Your task to perform on an android device: What's the weather going to be this weekend? Image 0: 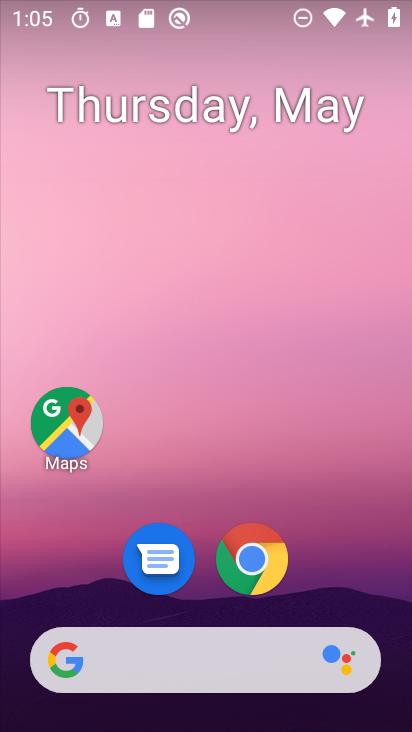
Step 0: drag from (211, 670) to (403, 354)
Your task to perform on an android device: What's the weather going to be this weekend? Image 1: 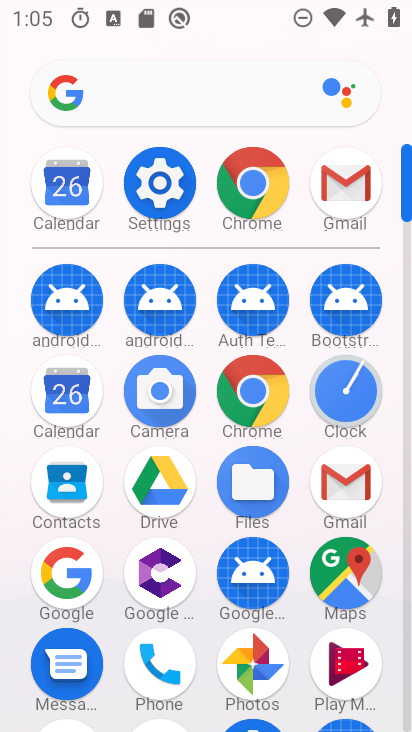
Step 1: click (67, 573)
Your task to perform on an android device: What's the weather going to be this weekend? Image 2: 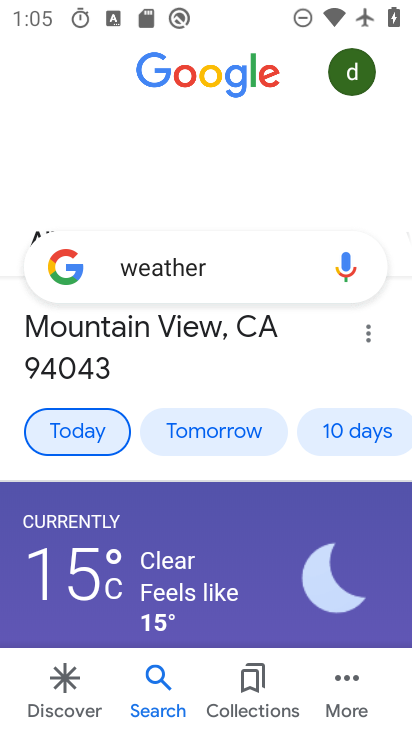
Step 2: click (344, 438)
Your task to perform on an android device: What's the weather going to be this weekend? Image 3: 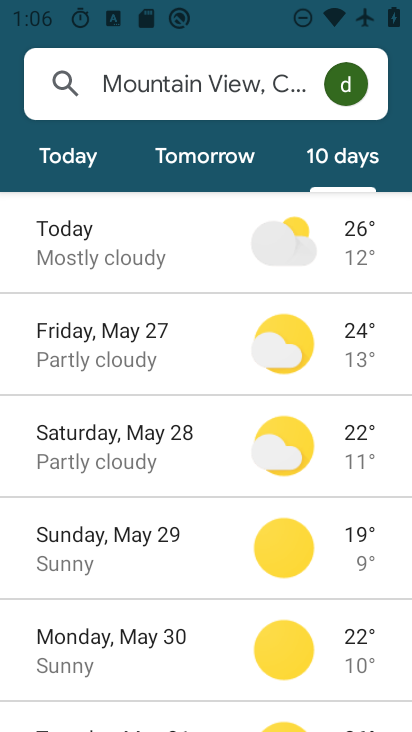
Step 3: task complete